Your task to perform on an android device: Open internet settings Image 0: 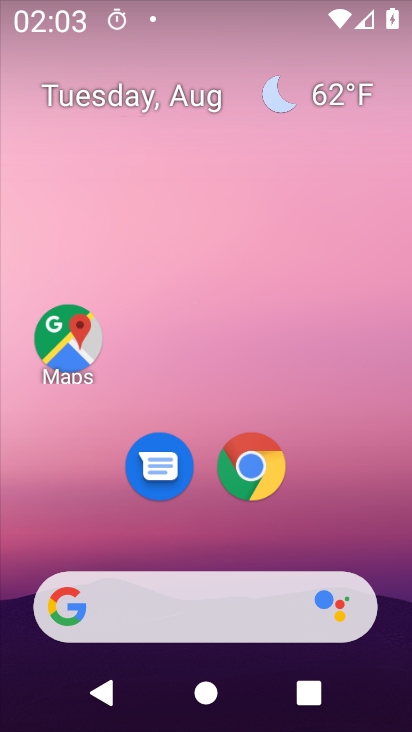
Step 0: press home button
Your task to perform on an android device: Open internet settings Image 1: 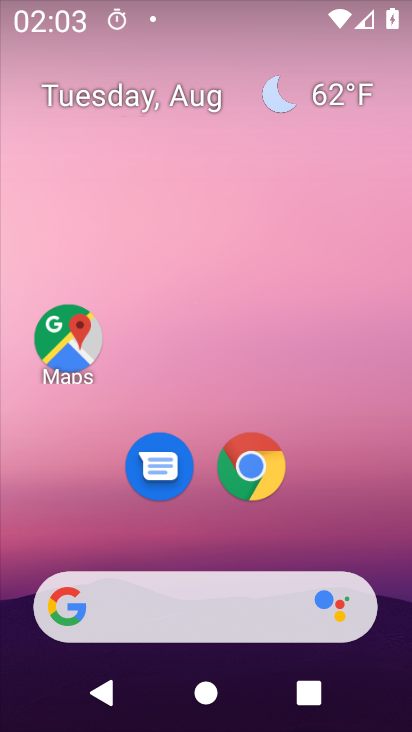
Step 1: drag from (384, 536) to (374, 147)
Your task to perform on an android device: Open internet settings Image 2: 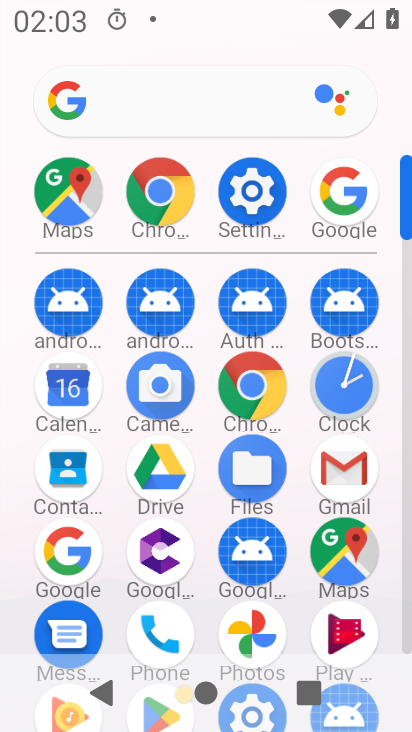
Step 2: click (268, 196)
Your task to perform on an android device: Open internet settings Image 3: 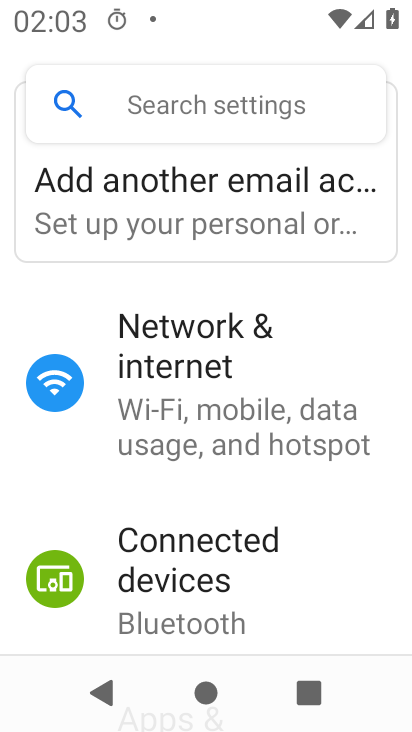
Step 3: drag from (364, 505) to (367, 378)
Your task to perform on an android device: Open internet settings Image 4: 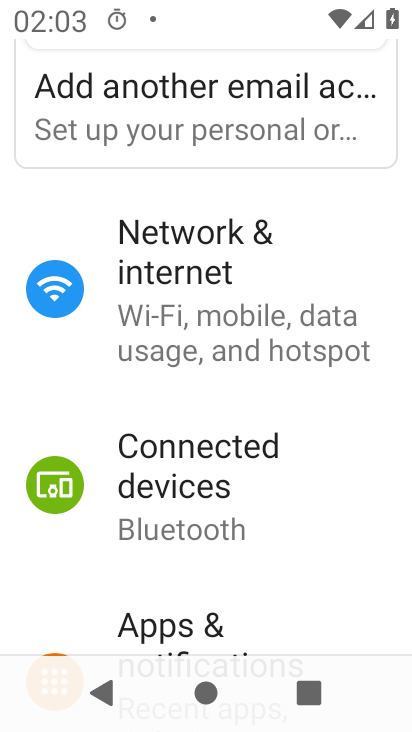
Step 4: drag from (358, 520) to (380, 373)
Your task to perform on an android device: Open internet settings Image 5: 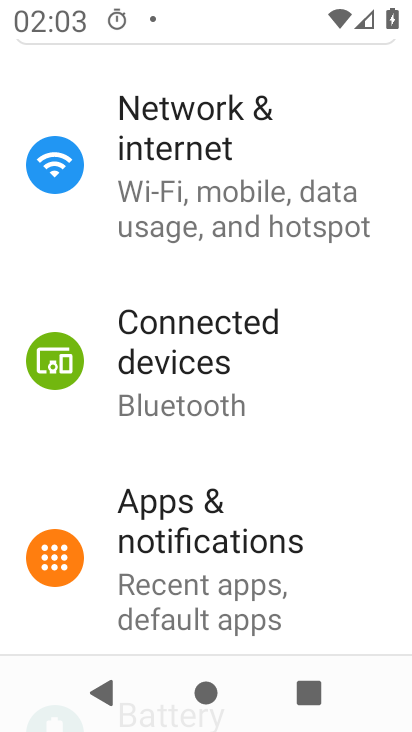
Step 5: drag from (348, 536) to (360, 363)
Your task to perform on an android device: Open internet settings Image 6: 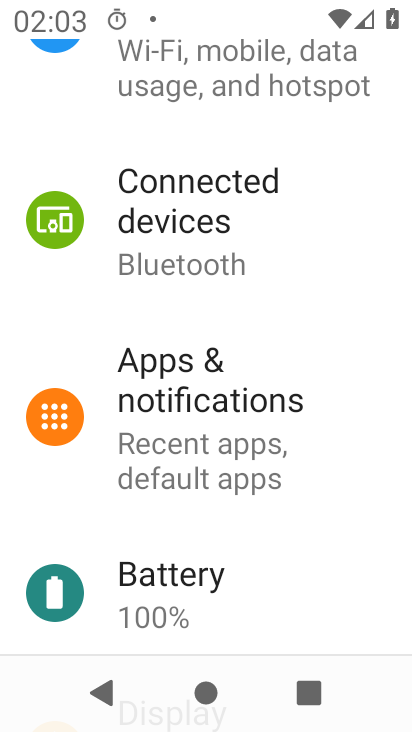
Step 6: drag from (346, 542) to (368, 413)
Your task to perform on an android device: Open internet settings Image 7: 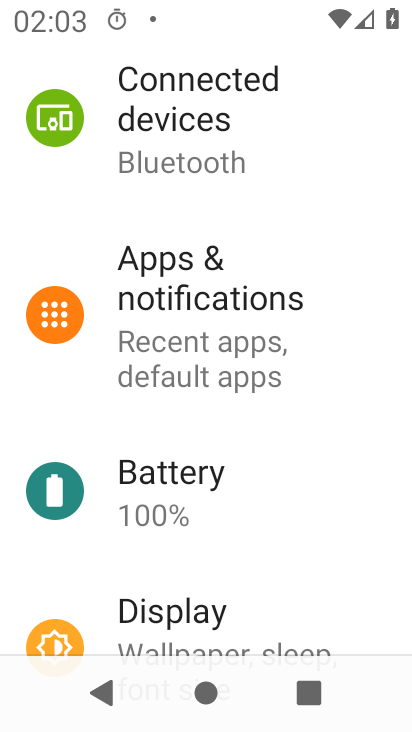
Step 7: drag from (332, 213) to (346, 309)
Your task to perform on an android device: Open internet settings Image 8: 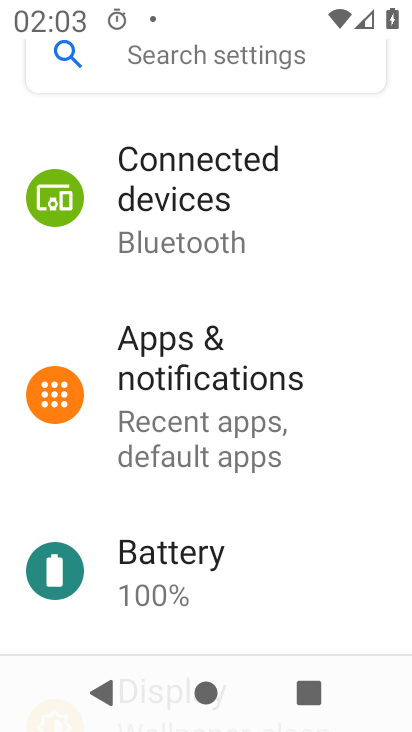
Step 8: drag from (347, 181) to (360, 283)
Your task to perform on an android device: Open internet settings Image 9: 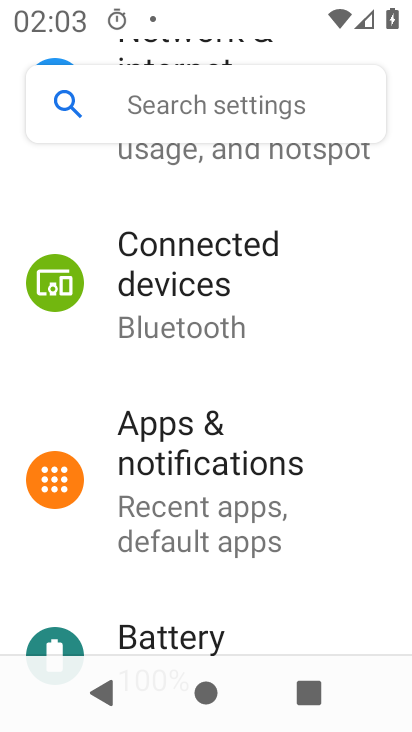
Step 9: drag from (367, 183) to (378, 315)
Your task to perform on an android device: Open internet settings Image 10: 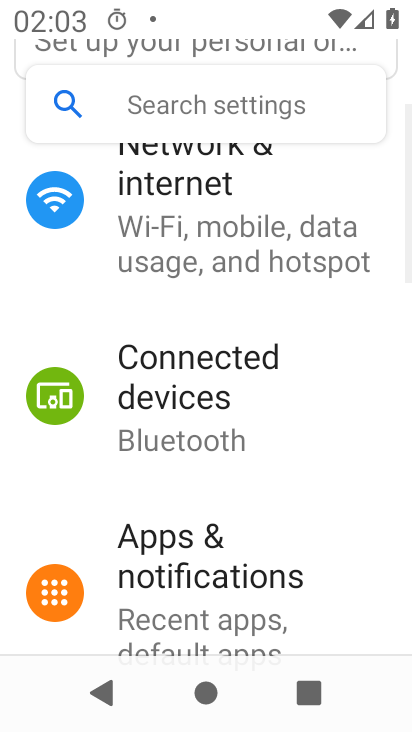
Step 10: drag from (378, 167) to (378, 335)
Your task to perform on an android device: Open internet settings Image 11: 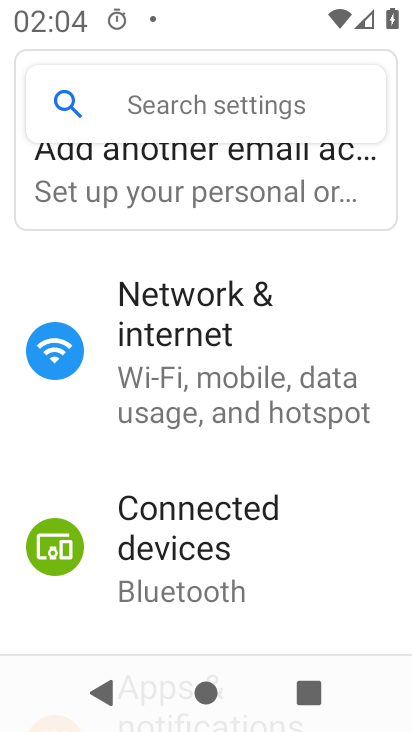
Step 11: click (236, 323)
Your task to perform on an android device: Open internet settings Image 12: 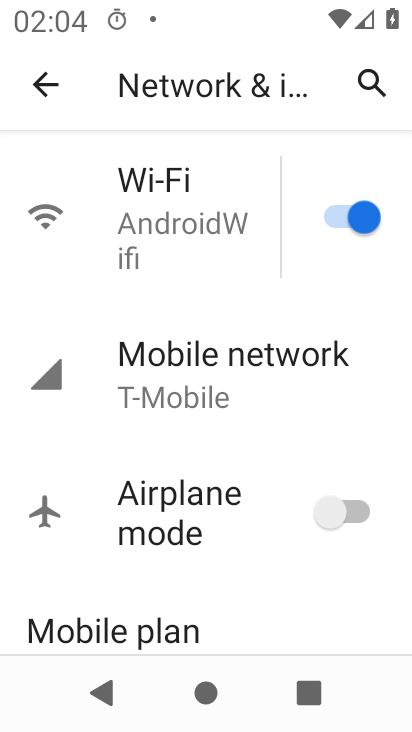
Step 12: task complete